Your task to perform on an android device: open device folders in google photos Image 0: 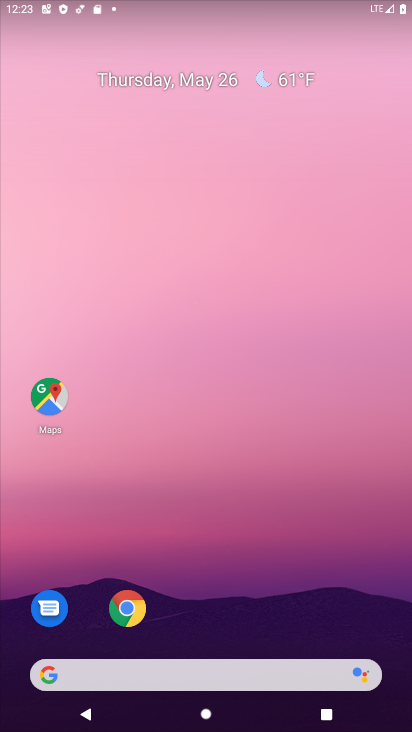
Step 0: drag from (376, 620) to (344, 151)
Your task to perform on an android device: open device folders in google photos Image 1: 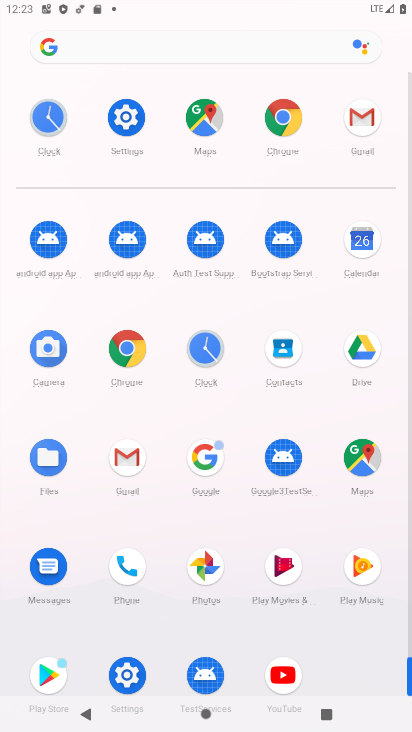
Step 1: click (204, 565)
Your task to perform on an android device: open device folders in google photos Image 2: 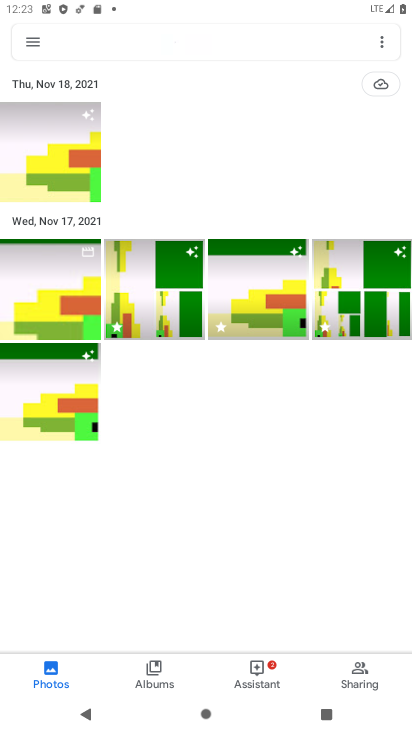
Step 2: click (32, 43)
Your task to perform on an android device: open device folders in google photos Image 3: 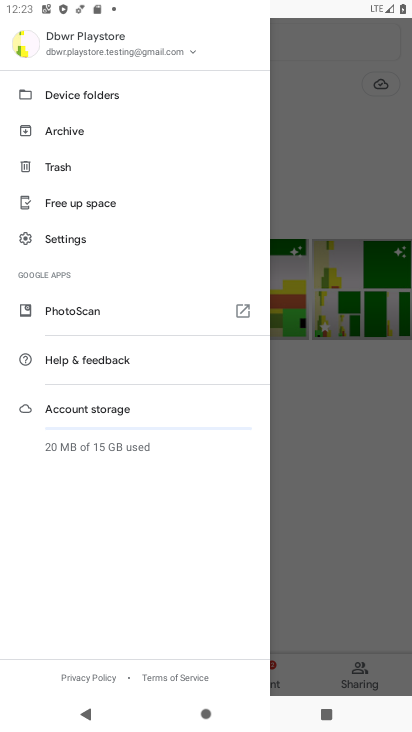
Step 3: click (79, 103)
Your task to perform on an android device: open device folders in google photos Image 4: 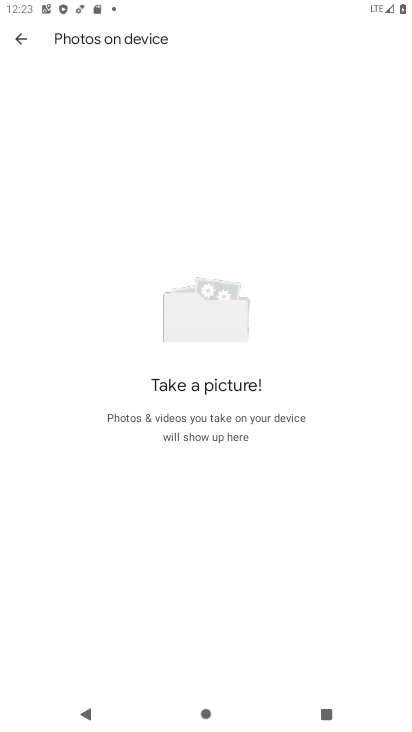
Step 4: task complete